Your task to perform on an android device: Open wifi settings Image 0: 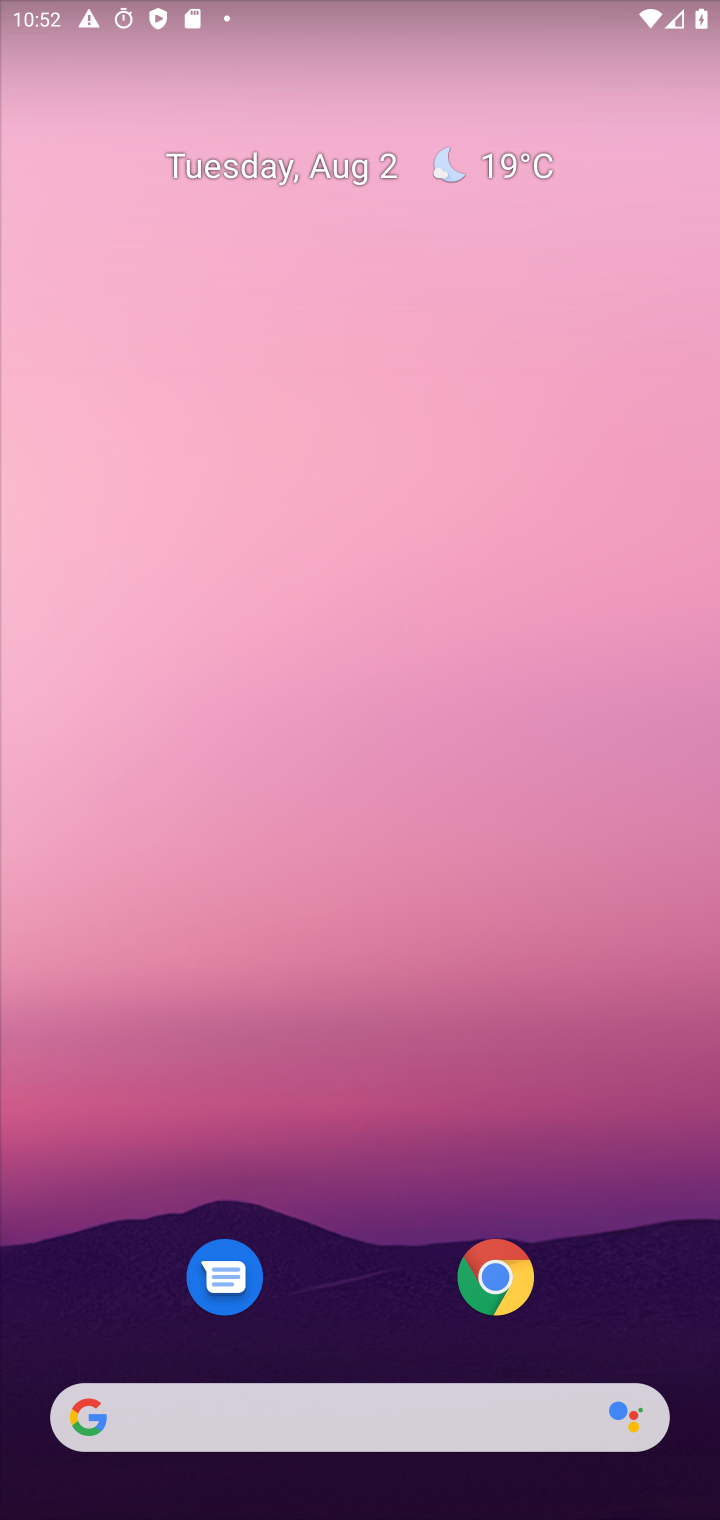
Step 0: press home button
Your task to perform on an android device: Open wifi settings Image 1: 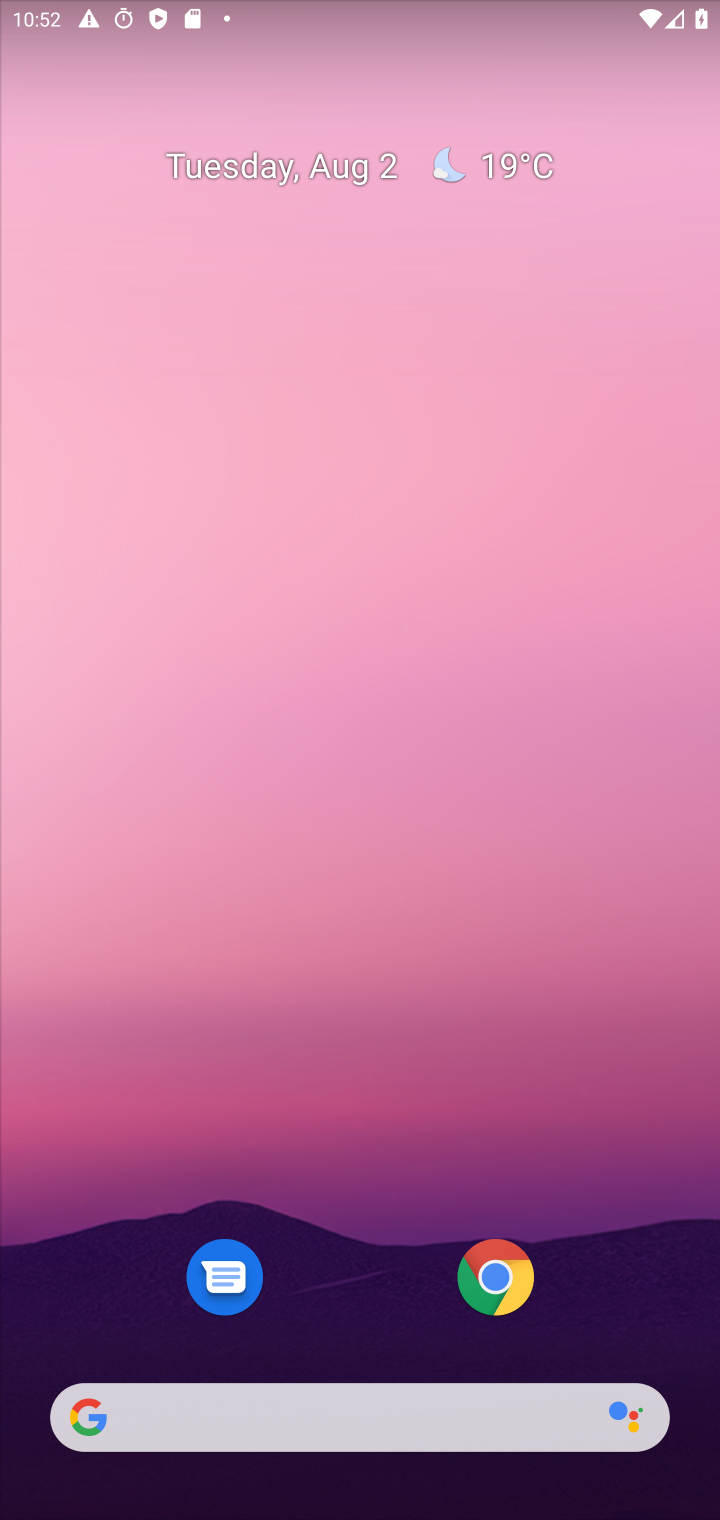
Step 1: drag from (415, 1291) to (496, 300)
Your task to perform on an android device: Open wifi settings Image 2: 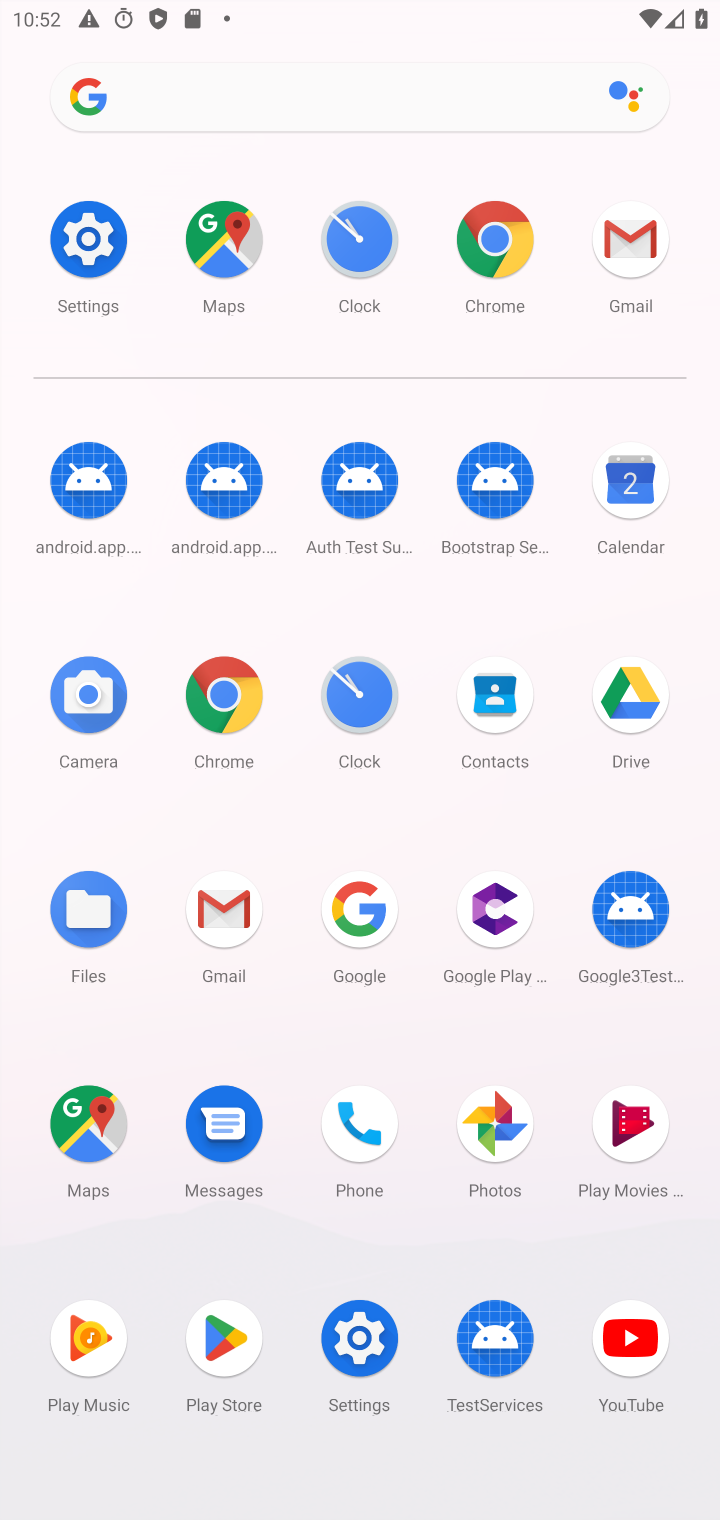
Step 2: click (97, 242)
Your task to perform on an android device: Open wifi settings Image 3: 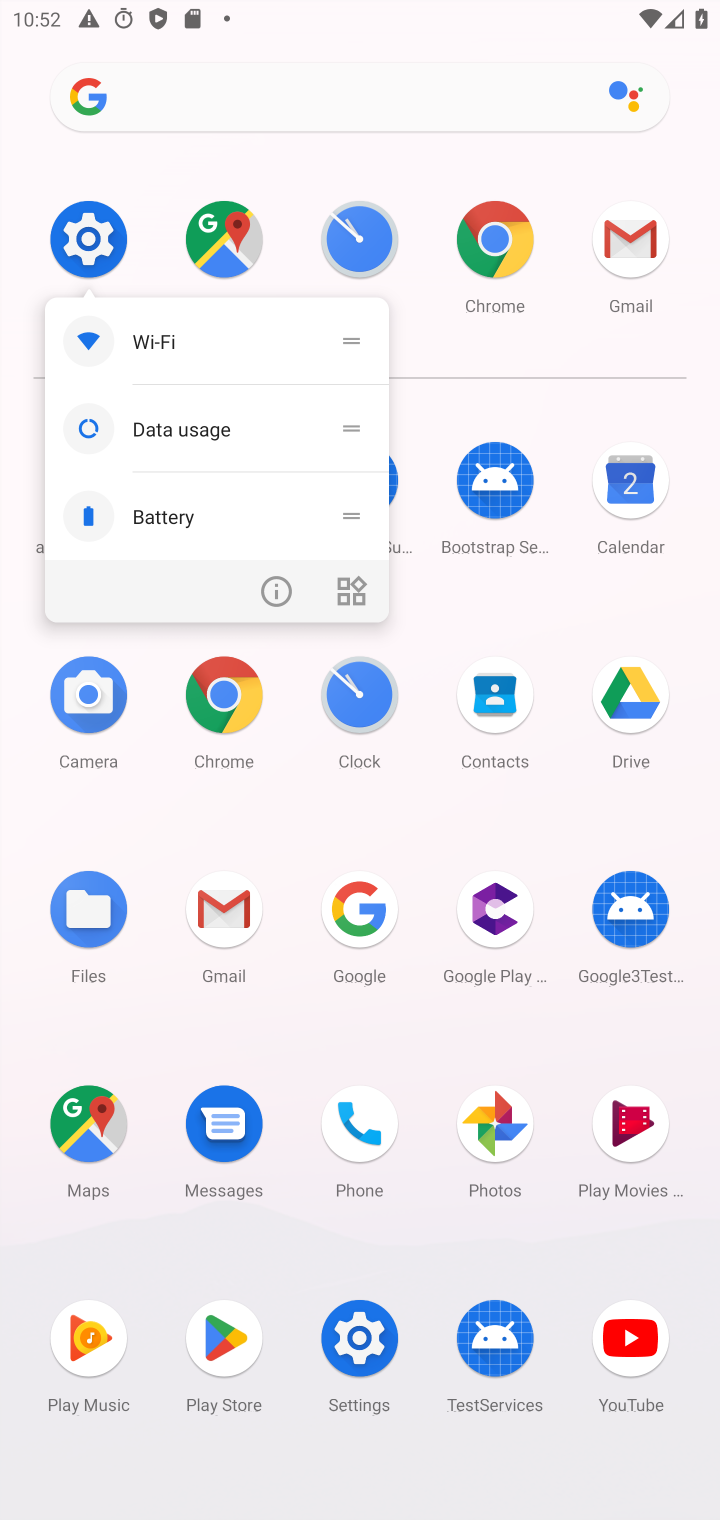
Step 3: click (68, 250)
Your task to perform on an android device: Open wifi settings Image 4: 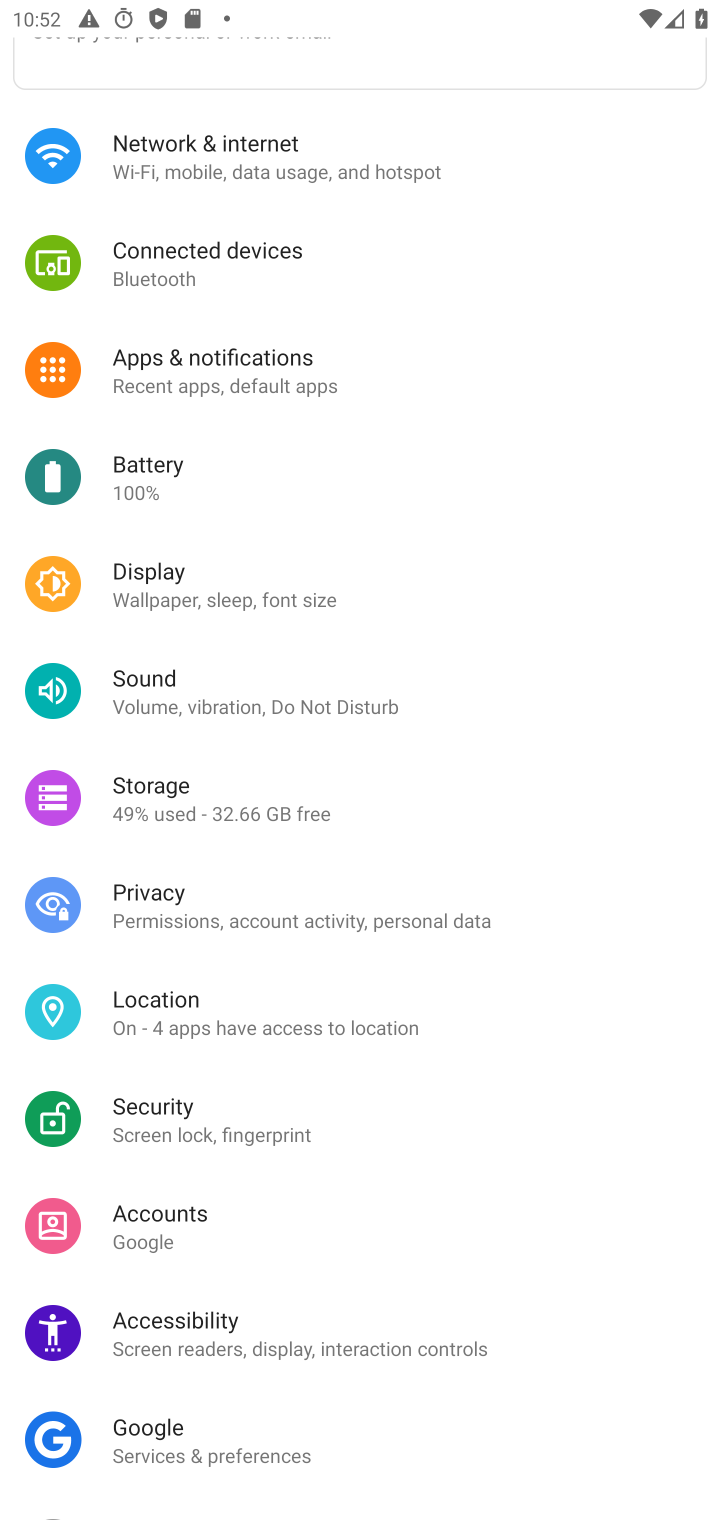
Step 4: click (242, 151)
Your task to perform on an android device: Open wifi settings Image 5: 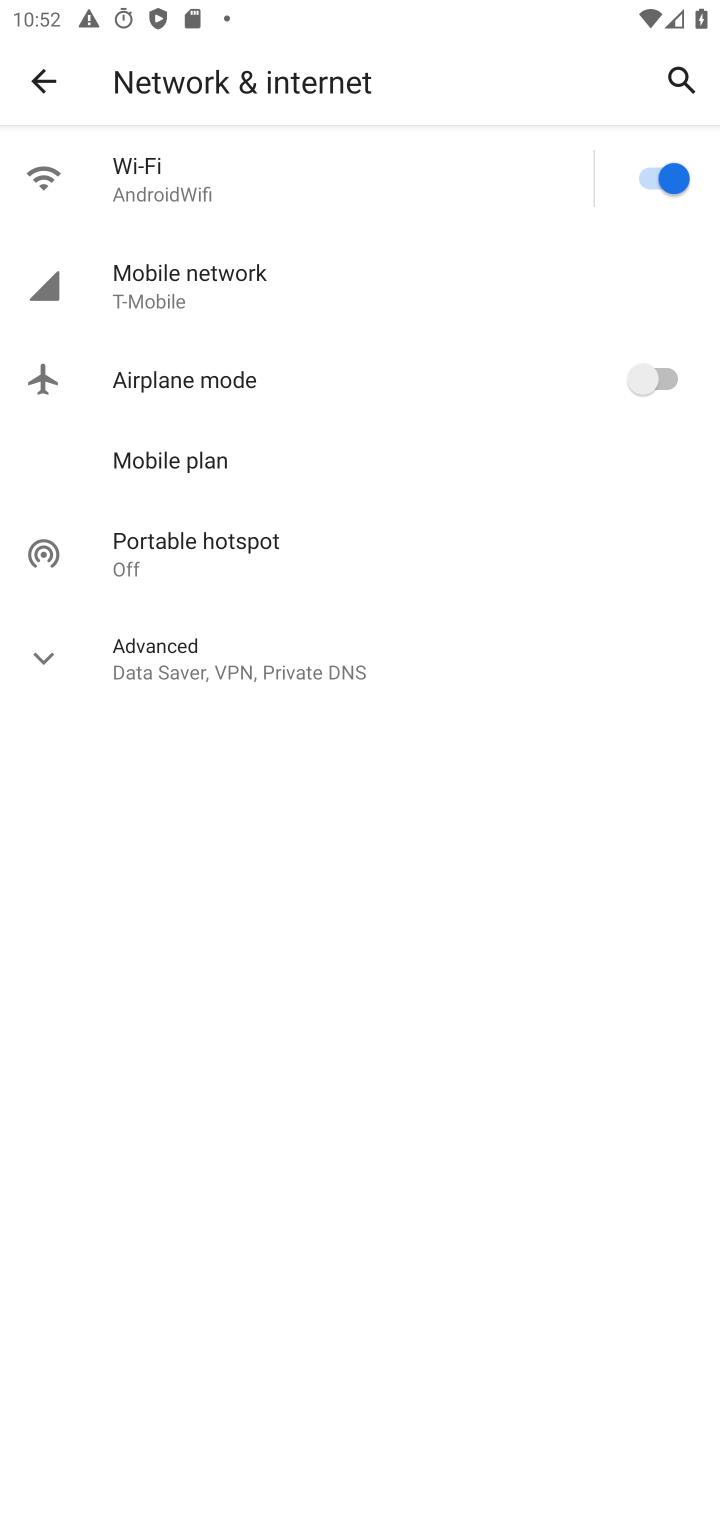
Step 5: click (191, 180)
Your task to perform on an android device: Open wifi settings Image 6: 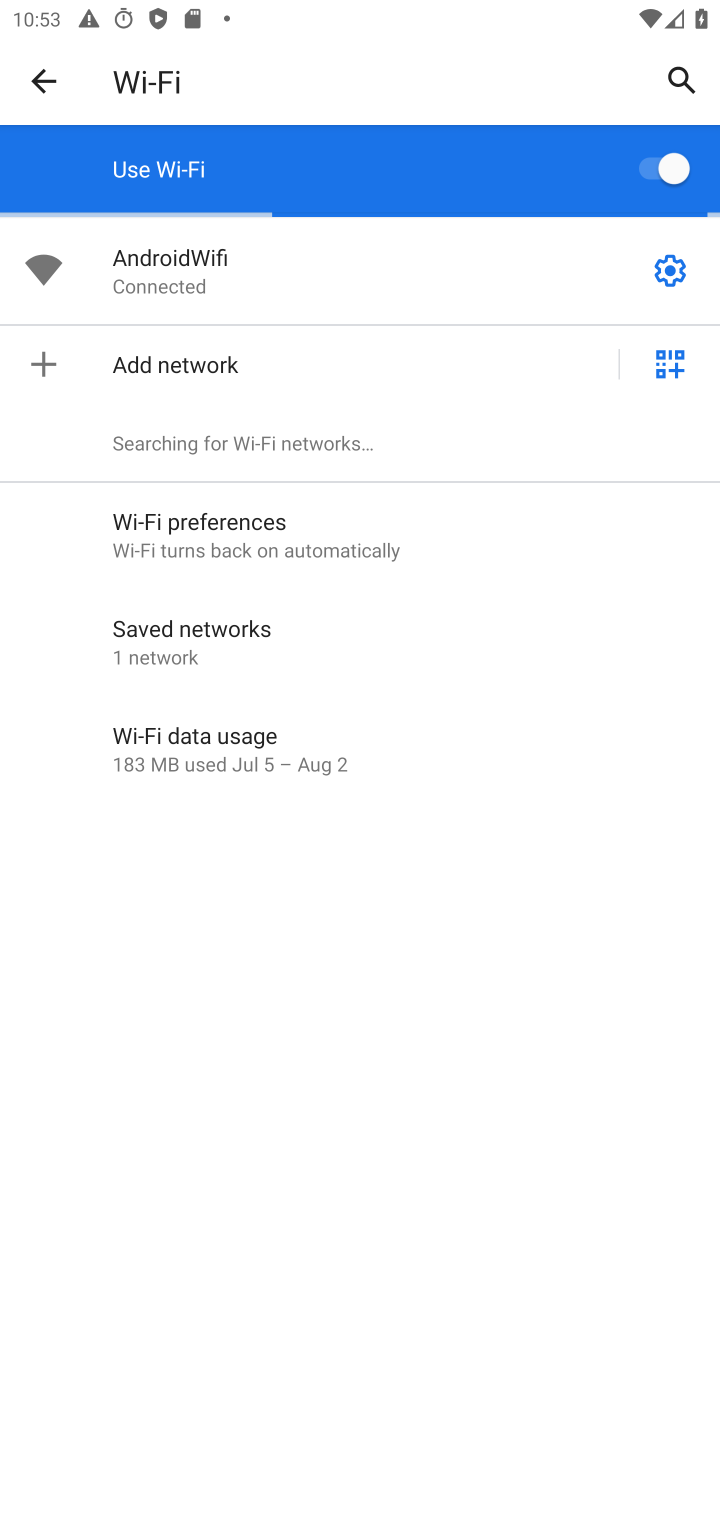
Step 6: task complete